Your task to perform on an android device: Search for seafood restaurants on Google Maps Image 0: 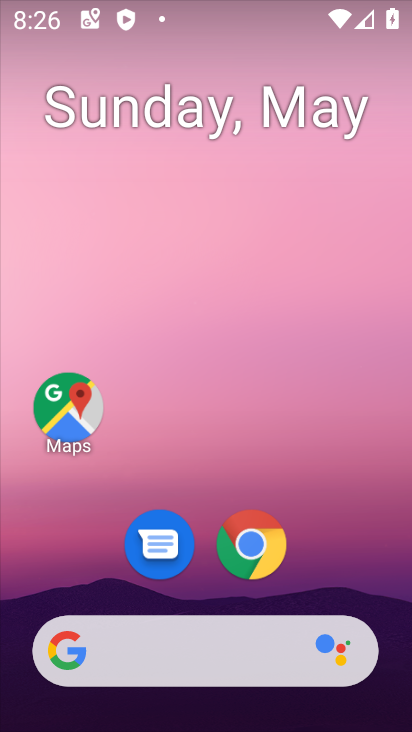
Step 0: drag from (347, 504) to (267, 0)
Your task to perform on an android device: Search for seafood restaurants on Google Maps Image 1: 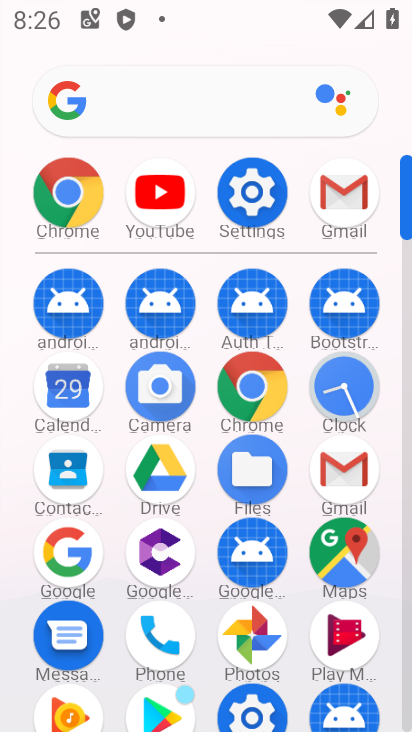
Step 1: drag from (5, 579) to (22, 195)
Your task to perform on an android device: Search for seafood restaurants on Google Maps Image 2: 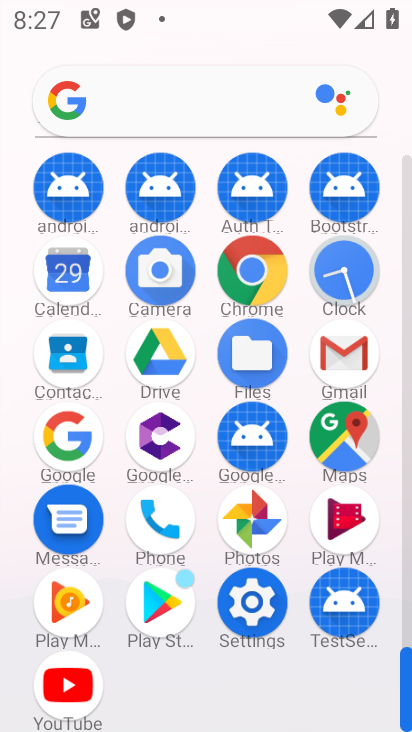
Step 2: click (337, 429)
Your task to perform on an android device: Search for seafood restaurants on Google Maps Image 3: 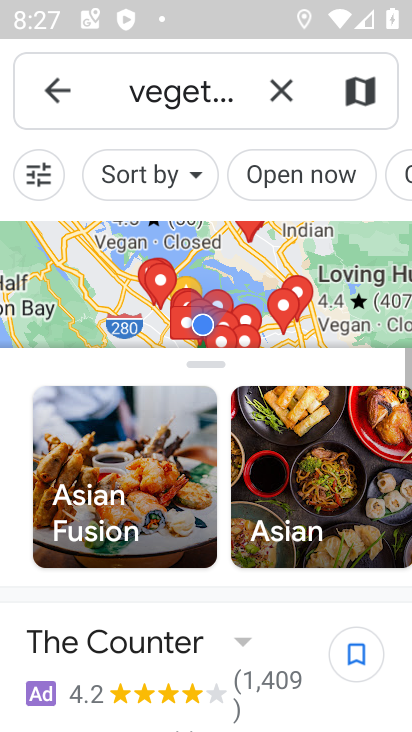
Step 3: click (286, 88)
Your task to perform on an android device: Search for seafood restaurants on Google Maps Image 4: 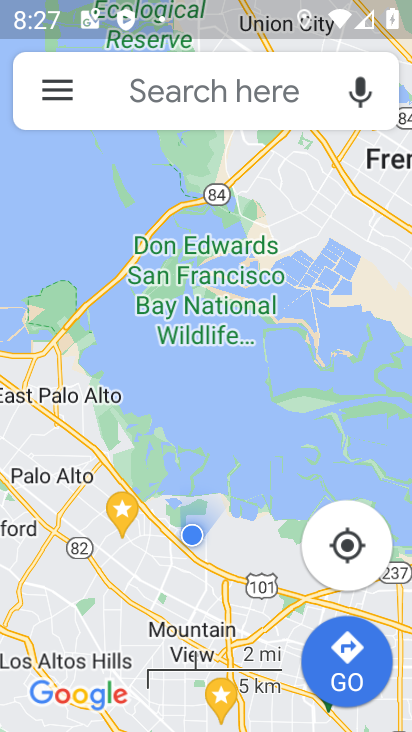
Step 4: click (161, 88)
Your task to perform on an android device: Search for seafood restaurants on Google Maps Image 5: 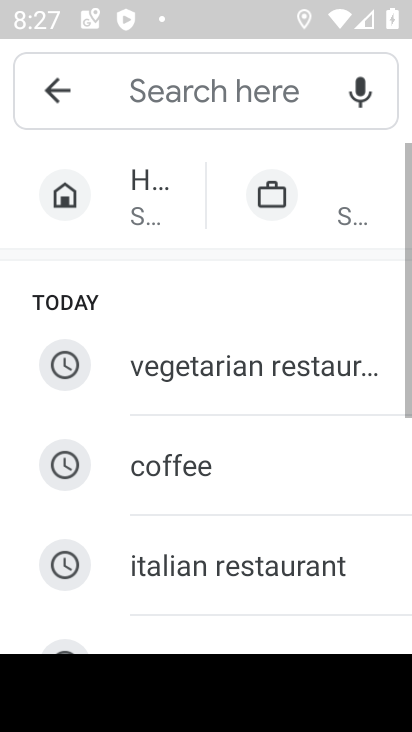
Step 5: drag from (215, 597) to (232, 334)
Your task to perform on an android device: Search for seafood restaurants on Google Maps Image 6: 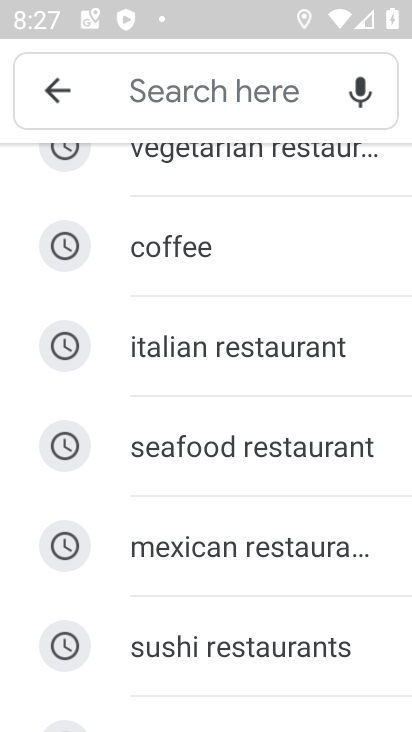
Step 6: click (206, 469)
Your task to perform on an android device: Search for seafood restaurants on Google Maps Image 7: 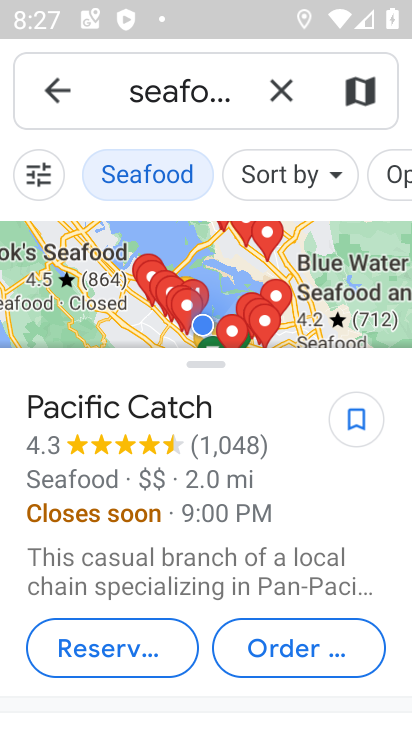
Step 7: task complete